Your task to perform on an android device: Go to ESPN.com Image 0: 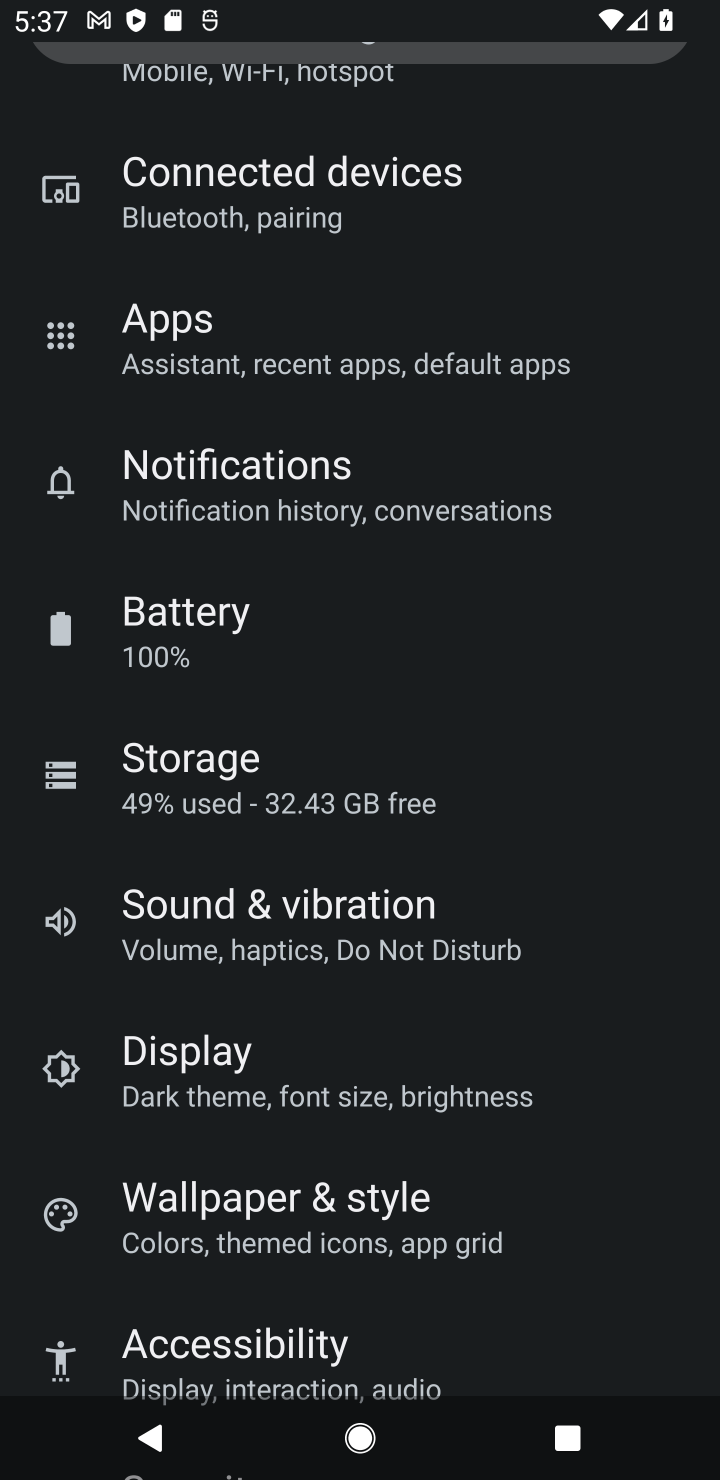
Step 0: press home button
Your task to perform on an android device: Go to ESPN.com Image 1: 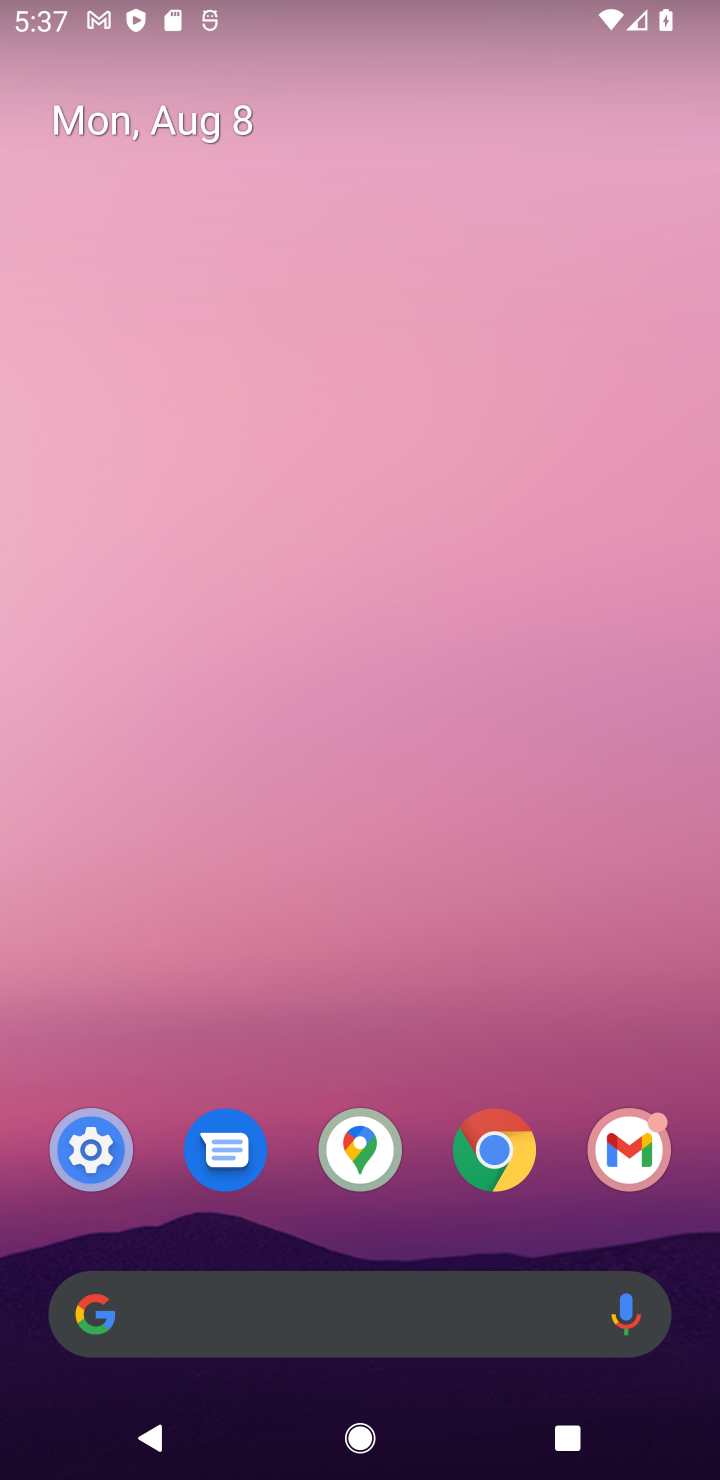
Step 1: click (484, 1159)
Your task to perform on an android device: Go to ESPN.com Image 2: 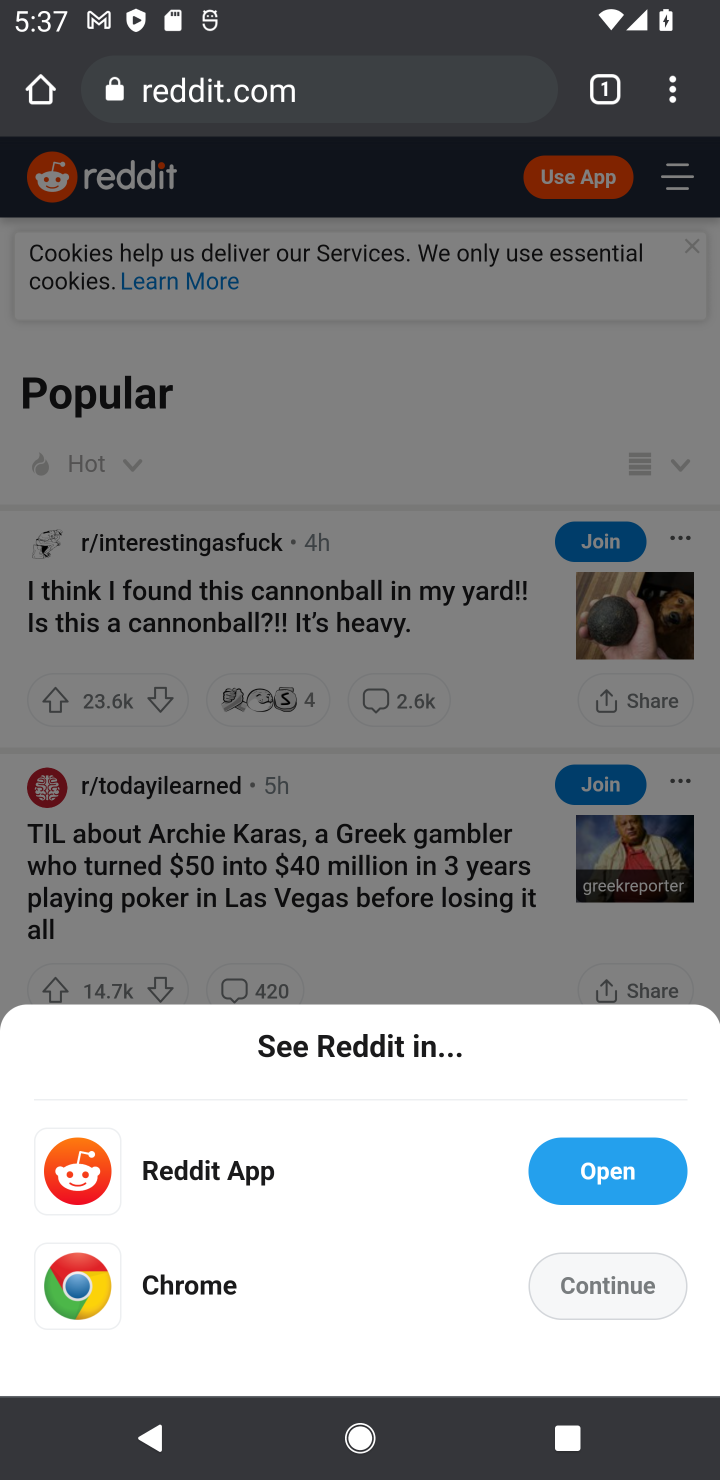
Step 2: click (595, 1285)
Your task to perform on an android device: Go to ESPN.com Image 3: 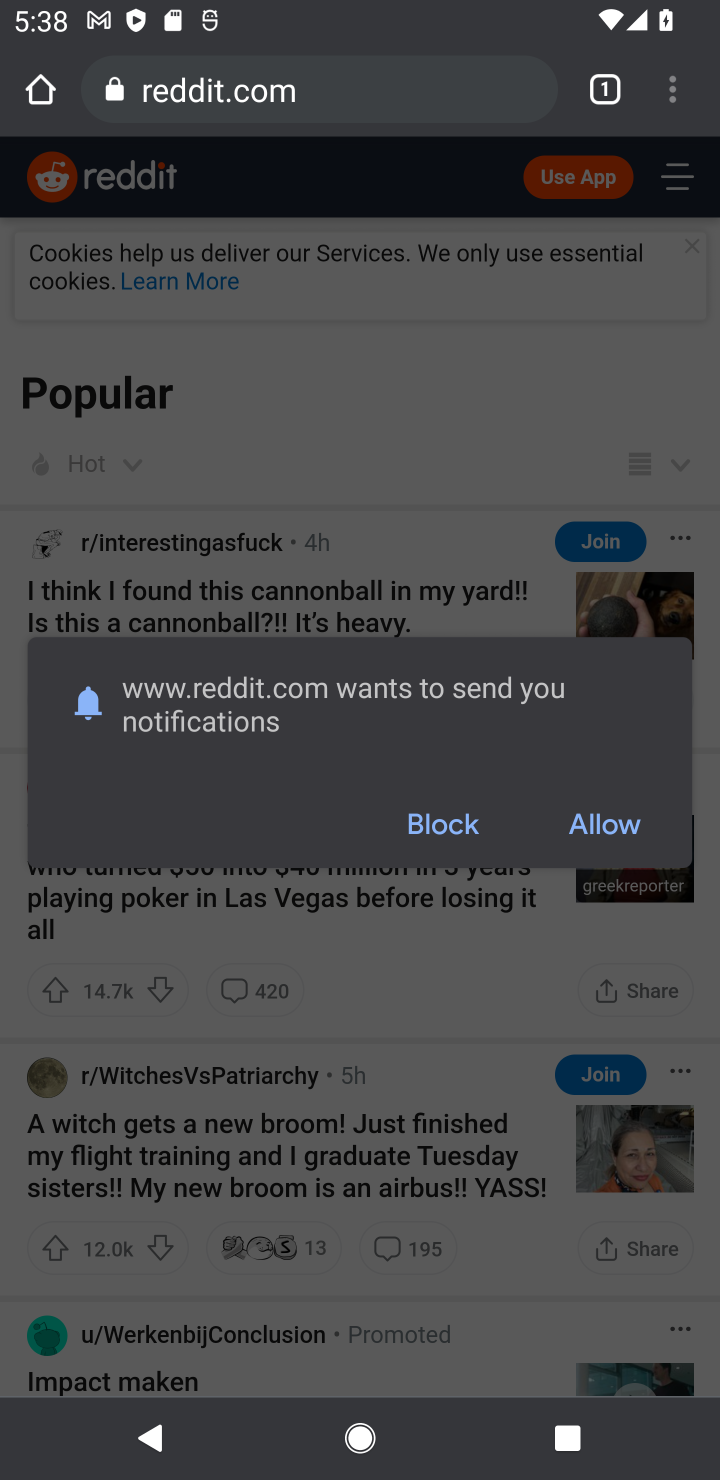
Step 3: click (454, 850)
Your task to perform on an android device: Go to ESPN.com Image 4: 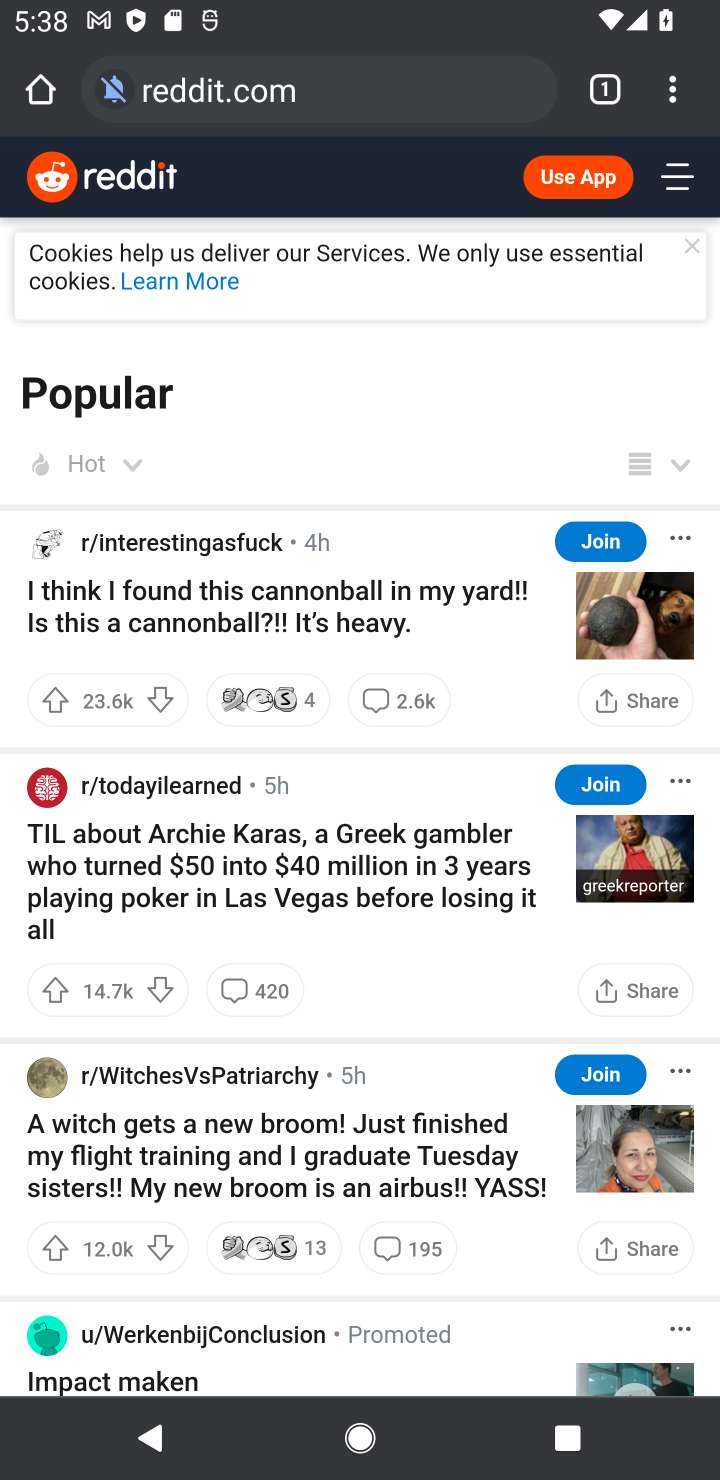
Step 4: click (344, 94)
Your task to perform on an android device: Go to ESPN.com Image 5: 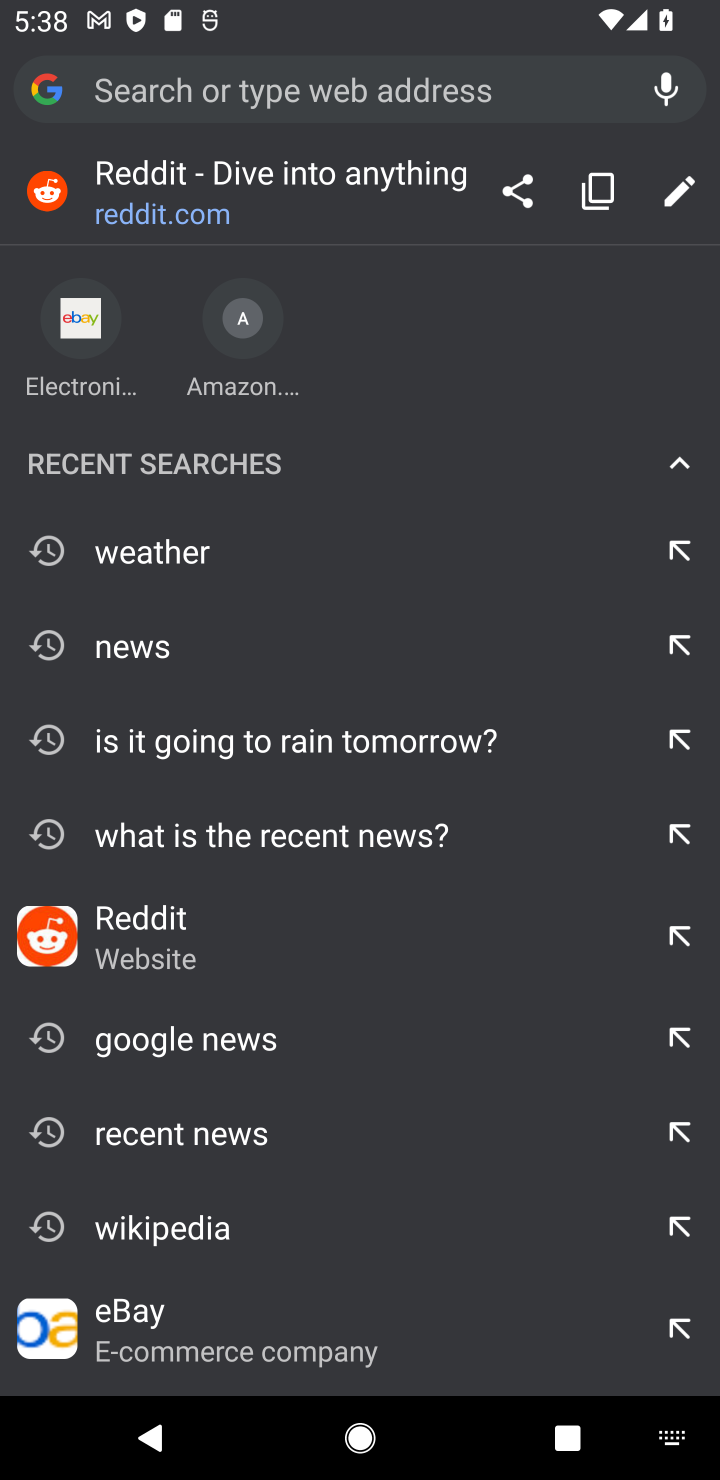
Step 5: type "espn.com"
Your task to perform on an android device: Go to ESPN.com Image 6: 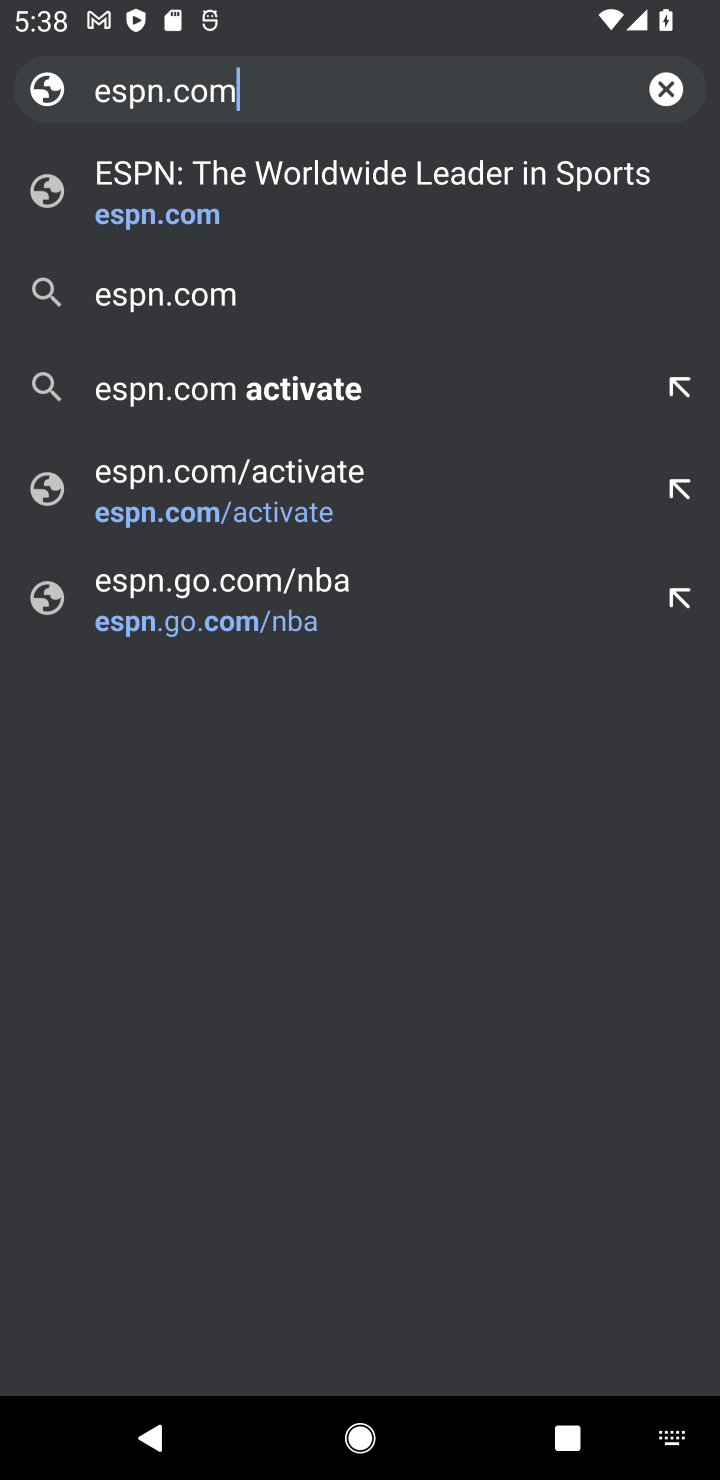
Step 6: click (279, 227)
Your task to perform on an android device: Go to ESPN.com Image 7: 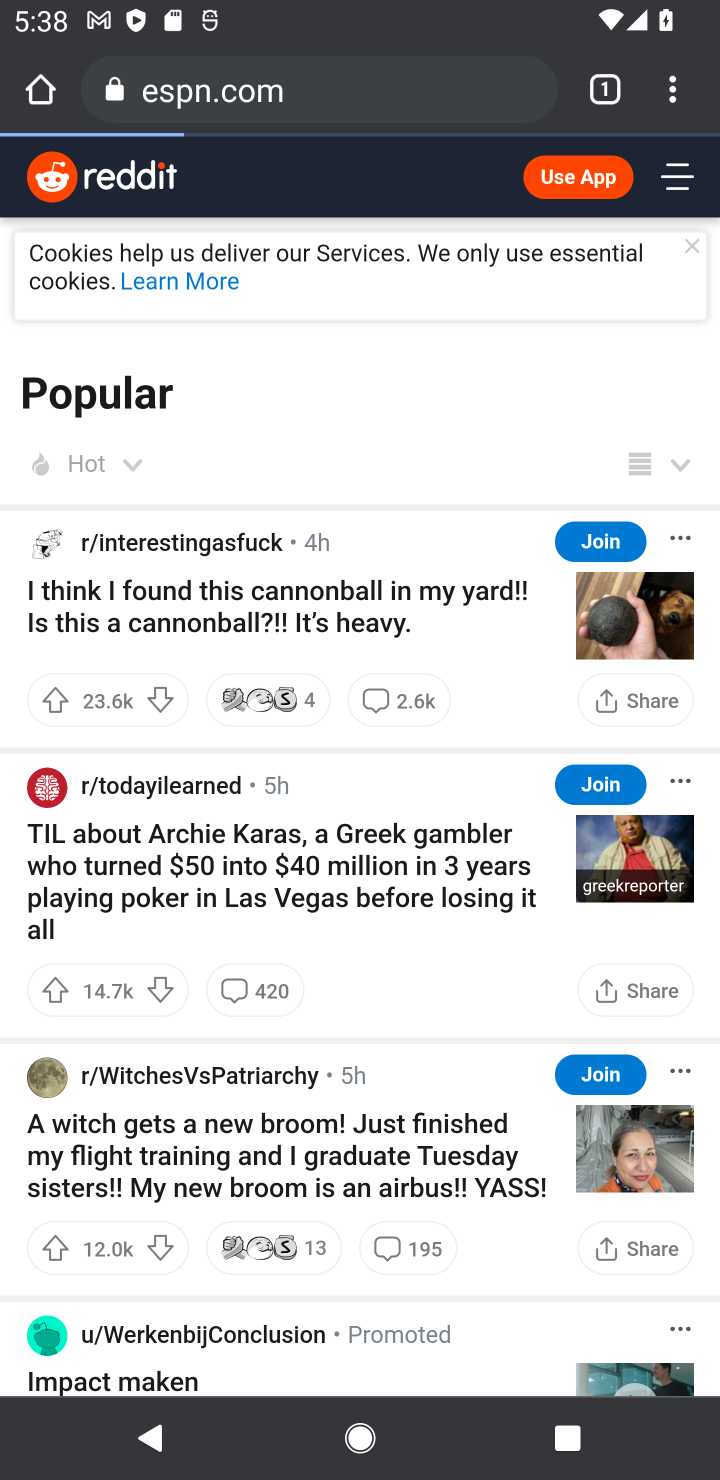
Step 7: task complete